Your task to perform on an android device: add a contact in the contacts app Image 0: 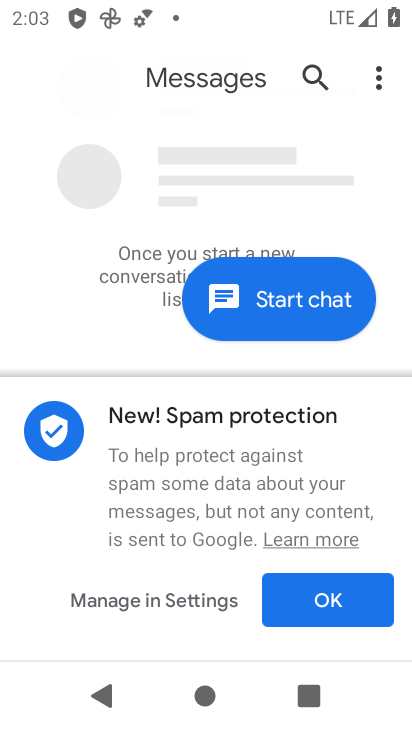
Step 0: press home button
Your task to perform on an android device: add a contact in the contacts app Image 1: 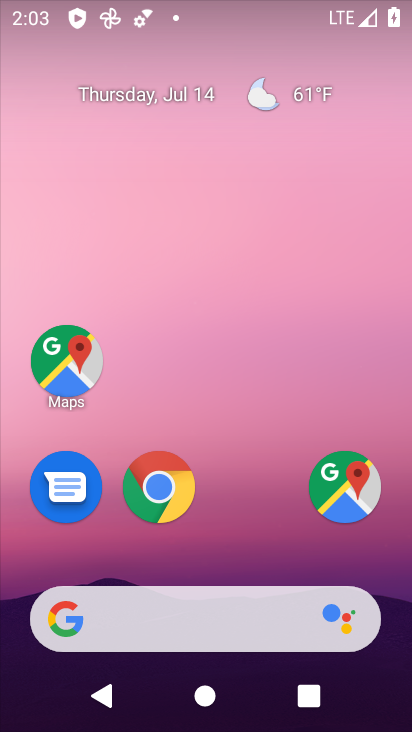
Step 1: drag from (249, 548) to (303, 76)
Your task to perform on an android device: add a contact in the contacts app Image 2: 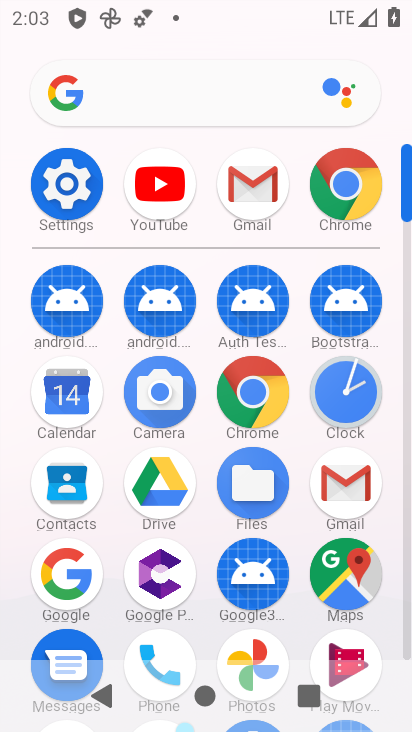
Step 2: click (80, 501)
Your task to perform on an android device: add a contact in the contacts app Image 3: 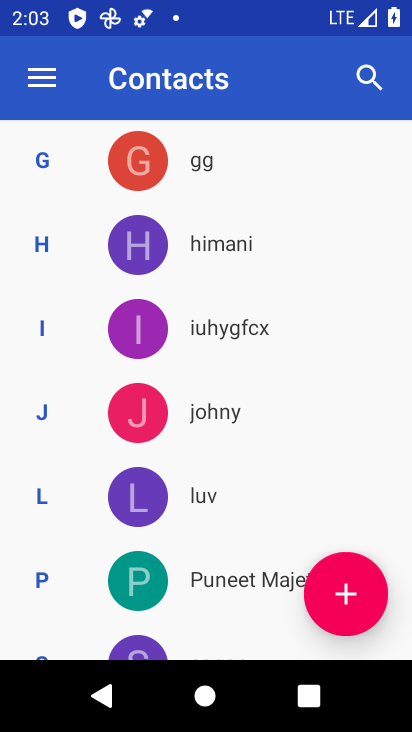
Step 3: click (356, 588)
Your task to perform on an android device: add a contact in the contacts app Image 4: 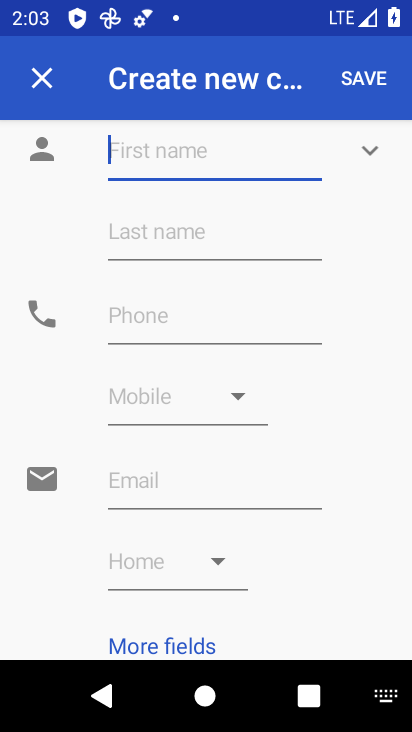
Step 4: type "joo"
Your task to perform on an android device: add a contact in the contacts app Image 5: 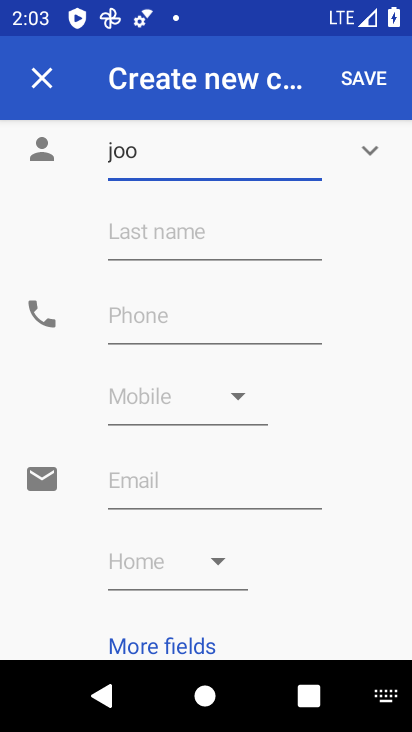
Step 5: click (273, 312)
Your task to perform on an android device: add a contact in the contacts app Image 6: 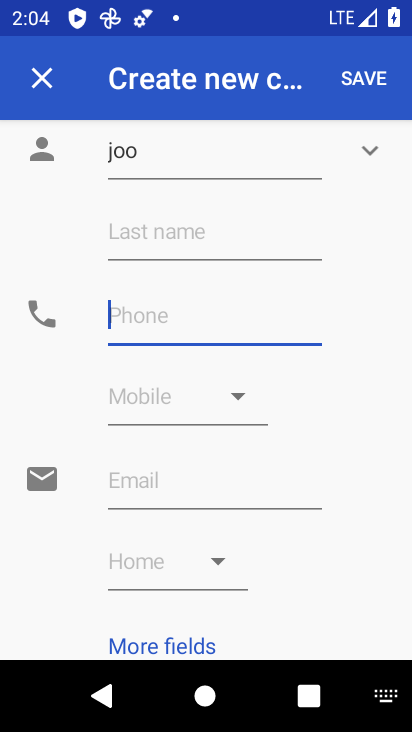
Step 6: type "1234567890"
Your task to perform on an android device: add a contact in the contacts app Image 7: 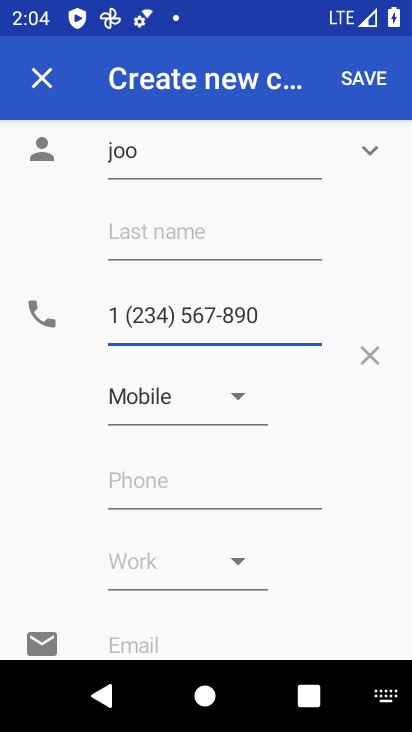
Step 7: click (379, 87)
Your task to perform on an android device: add a contact in the contacts app Image 8: 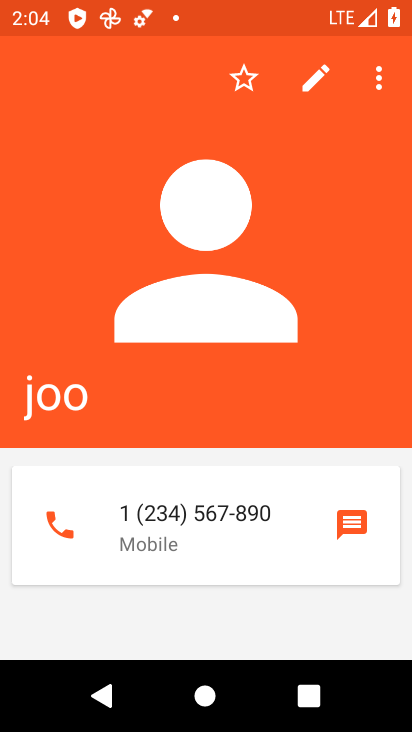
Step 8: task complete